Your task to perform on an android device: turn on the 12-hour format for clock Image 0: 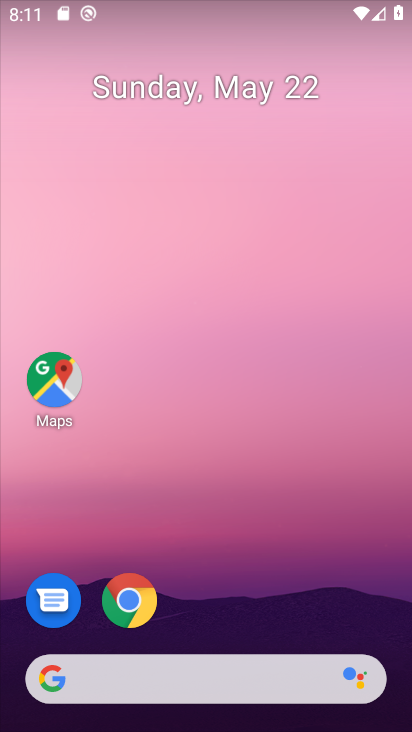
Step 0: drag from (149, 647) to (262, 249)
Your task to perform on an android device: turn on the 12-hour format for clock Image 1: 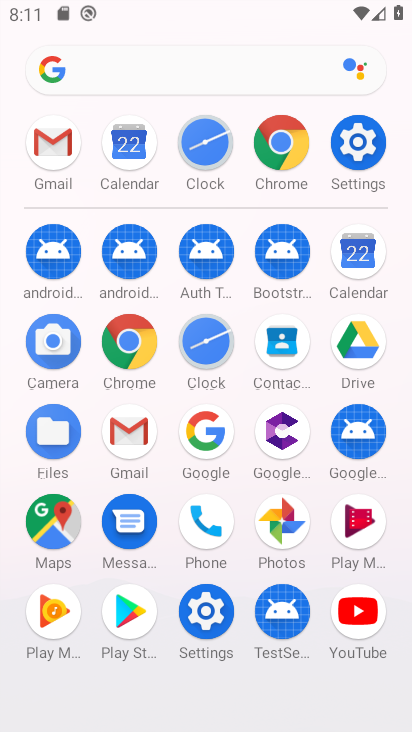
Step 1: click (199, 156)
Your task to perform on an android device: turn on the 12-hour format for clock Image 2: 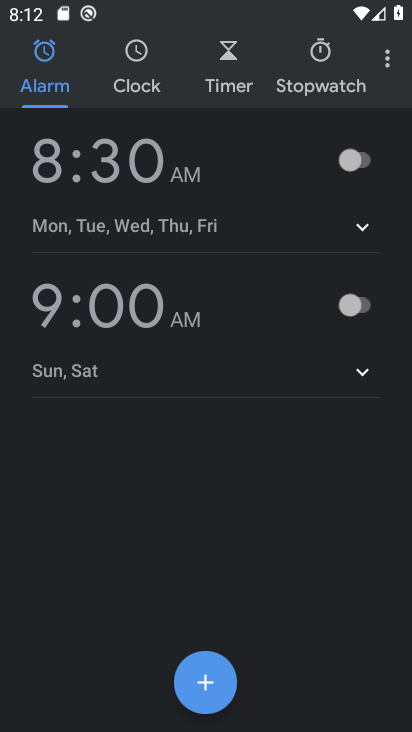
Step 2: click (396, 61)
Your task to perform on an android device: turn on the 12-hour format for clock Image 3: 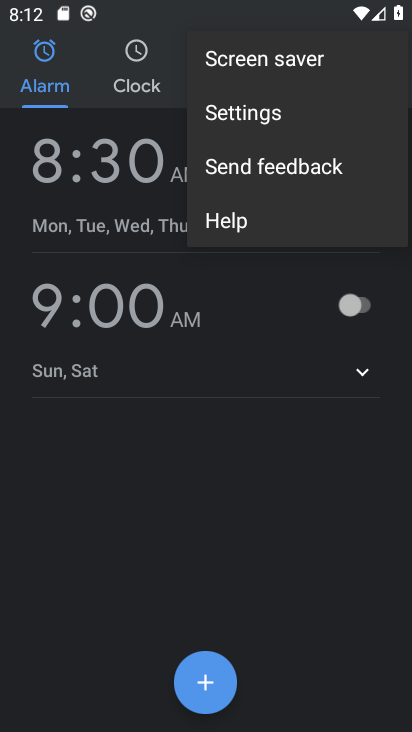
Step 3: click (230, 116)
Your task to perform on an android device: turn on the 12-hour format for clock Image 4: 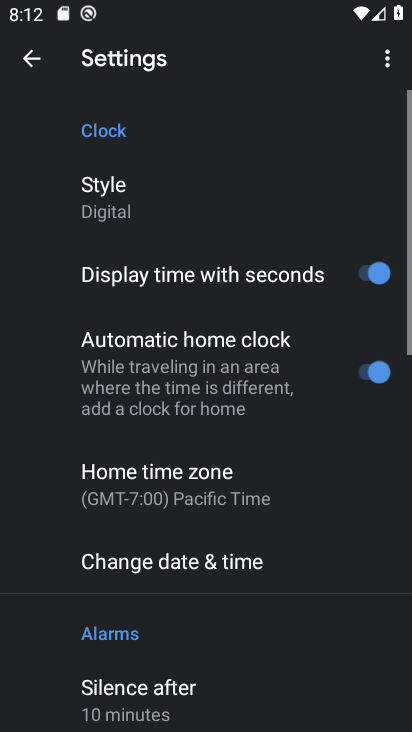
Step 4: click (160, 574)
Your task to perform on an android device: turn on the 12-hour format for clock Image 5: 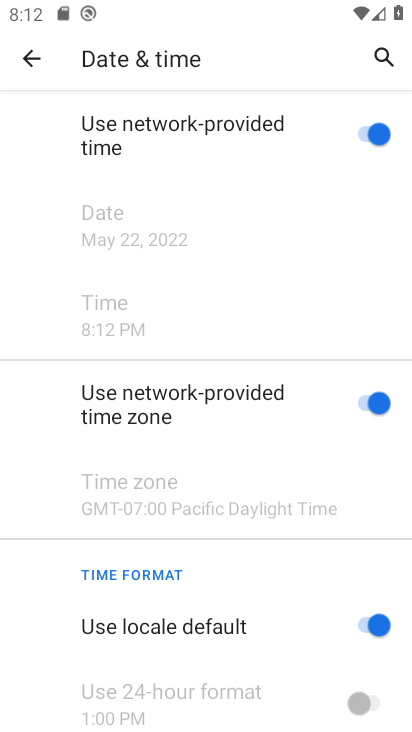
Step 5: task complete